Your task to perform on an android device: choose inbox layout in the gmail app Image 0: 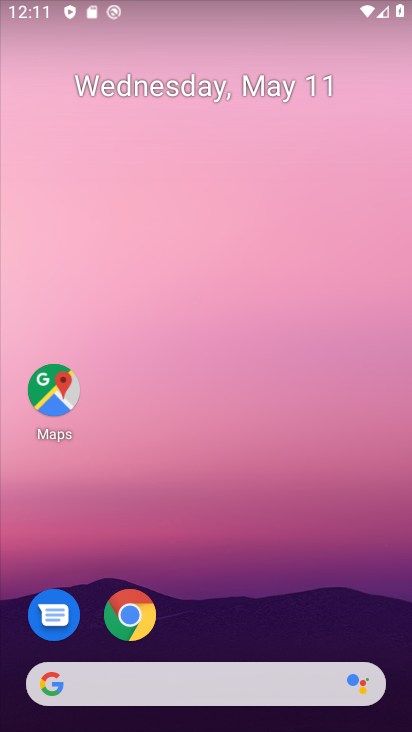
Step 0: drag from (243, 622) to (226, 215)
Your task to perform on an android device: choose inbox layout in the gmail app Image 1: 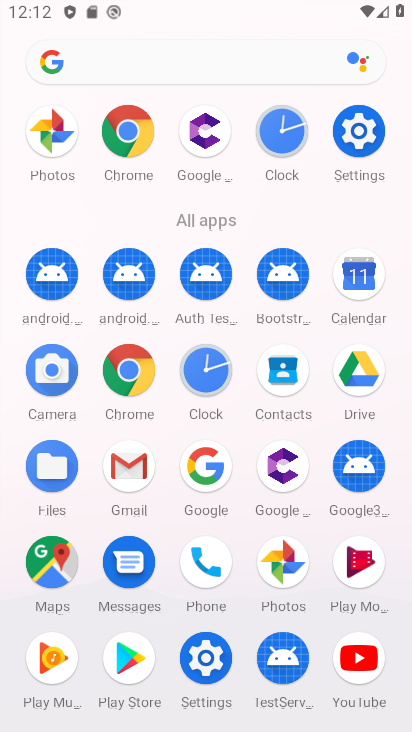
Step 1: click (127, 466)
Your task to perform on an android device: choose inbox layout in the gmail app Image 2: 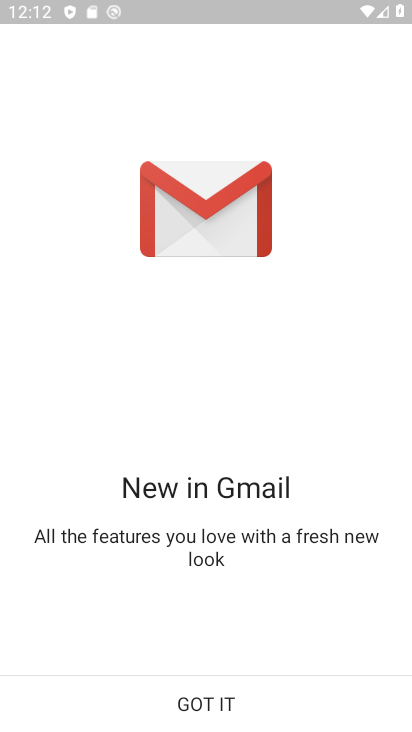
Step 2: click (179, 689)
Your task to perform on an android device: choose inbox layout in the gmail app Image 3: 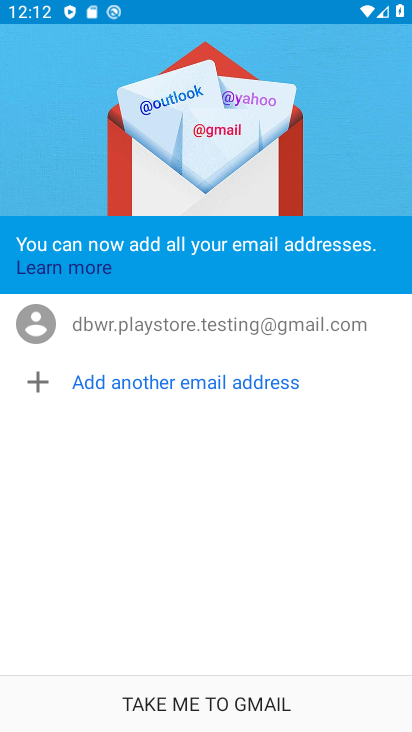
Step 3: click (179, 689)
Your task to perform on an android device: choose inbox layout in the gmail app Image 4: 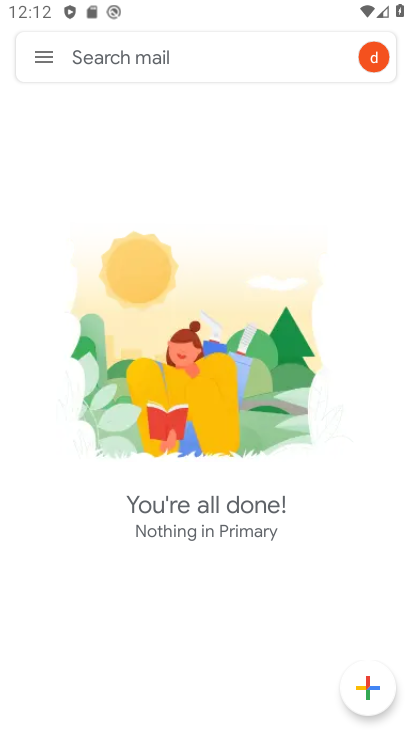
Step 4: click (40, 51)
Your task to perform on an android device: choose inbox layout in the gmail app Image 5: 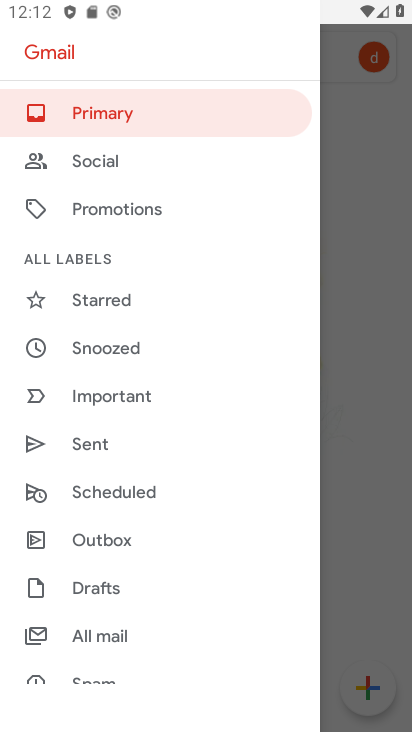
Step 5: drag from (155, 612) to (145, 139)
Your task to perform on an android device: choose inbox layout in the gmail app Image 6: 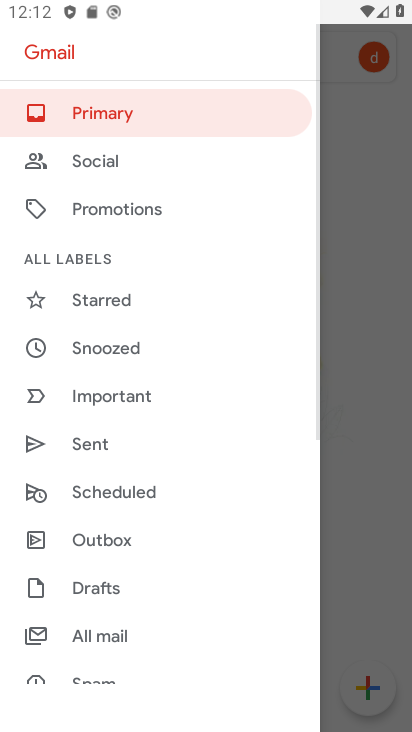
Step 6: drag from (154, 606) to (178, 210)
Your task to perform on an android device: choose inbox layout in the gmail app Image 7: 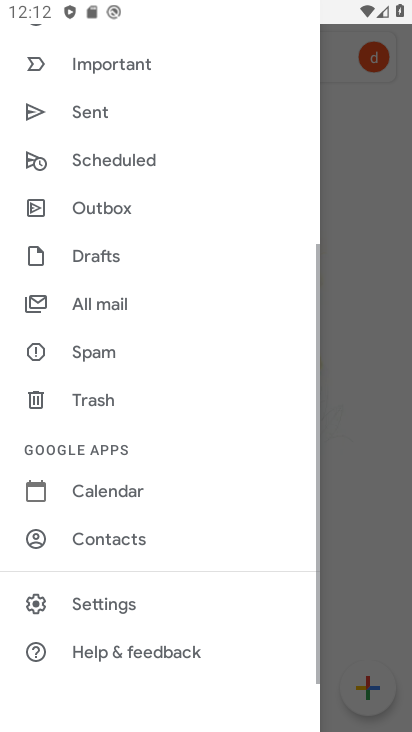
Step 7: click (180, 602)
Your task to perform on an android device: choose inbox layout in the gmail app Image 8: 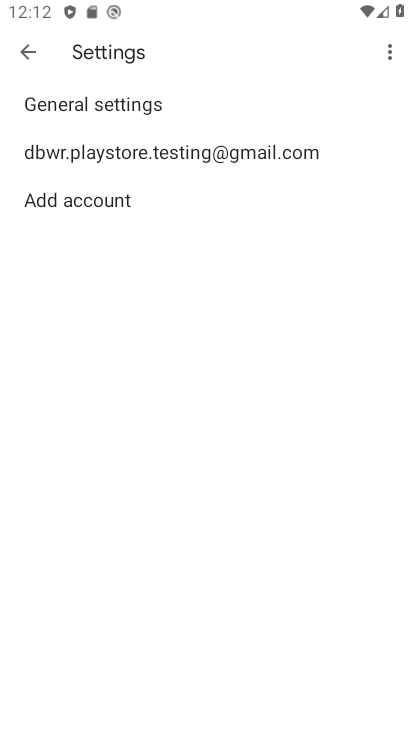
Step 8: click (158, 153)
Your task to perform on an android device: choose inbox layout in the gmail app Image 9: 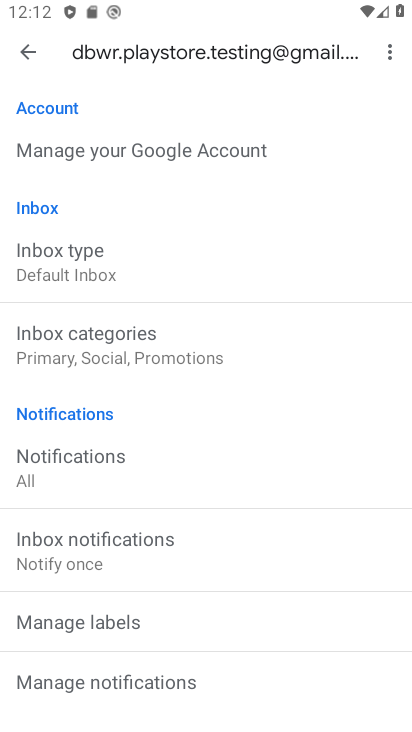
Step 9: click (108, 273)
Your task to perform on an android device: choose inbox layout in the gmail app Image 10: 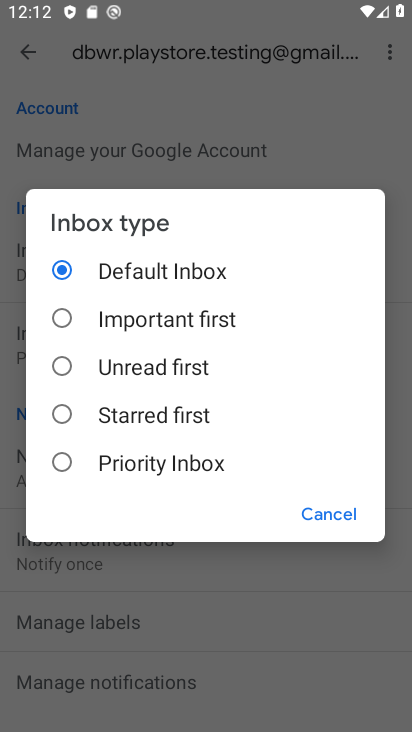
Step 10: click (186, 436)
Your task to perform on an android device: choose inbox layout in the gmail app Image 11: 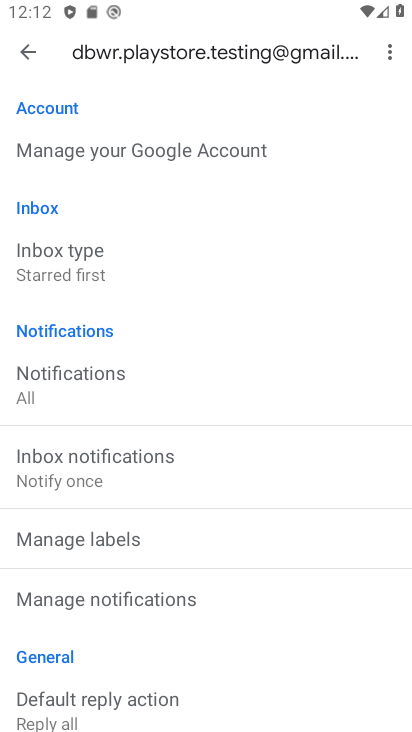
Step 11: task complete